Your task to perform on an android device: Go to Android settings Image 0: 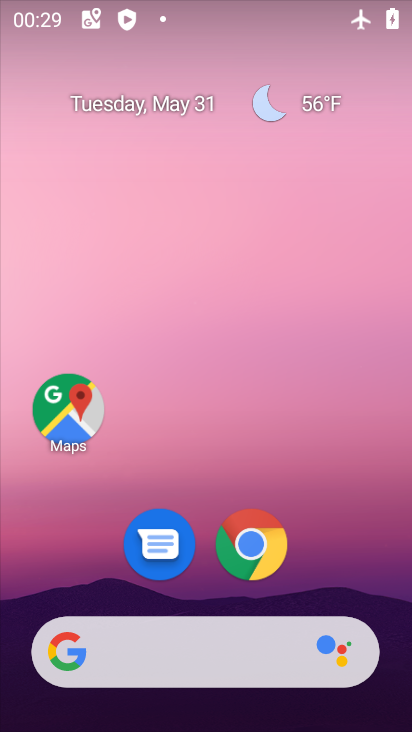
Step 0: drag from (343, 524) to (241, 96)
Your task to perform on an android device: Go to Android settings Image 1: 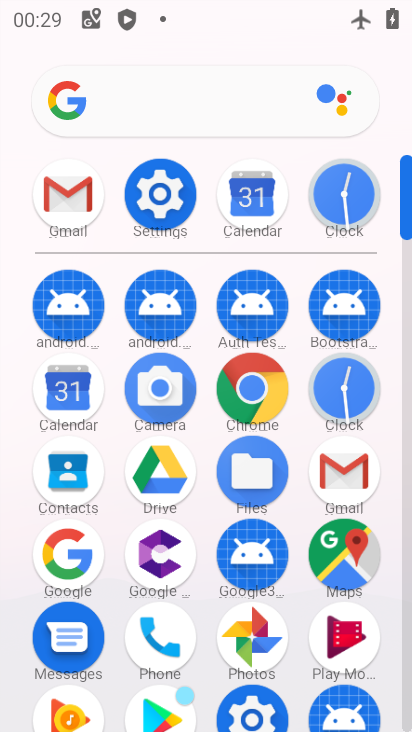
Step 1: click (154, 185)
Your task to perform on an android device: Go to Android settings Image 2: 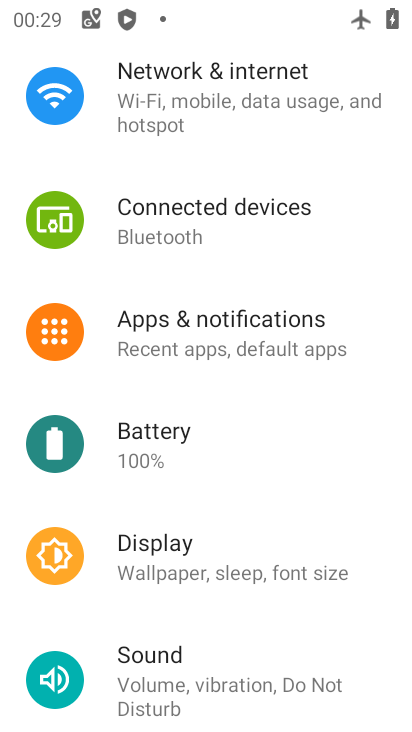
Step 2: task complete